Your task to perform on an android device: turn off data saver in the chrome app Image 0: 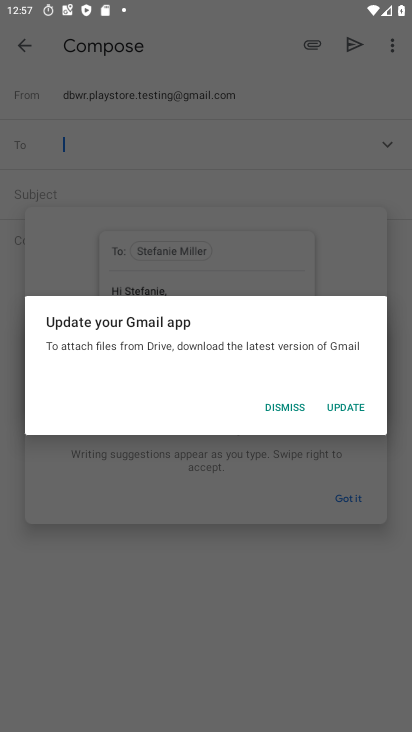
Step 0: press home button
Your task to perform on an android device: turn off data saver in the chrome app Image 1: 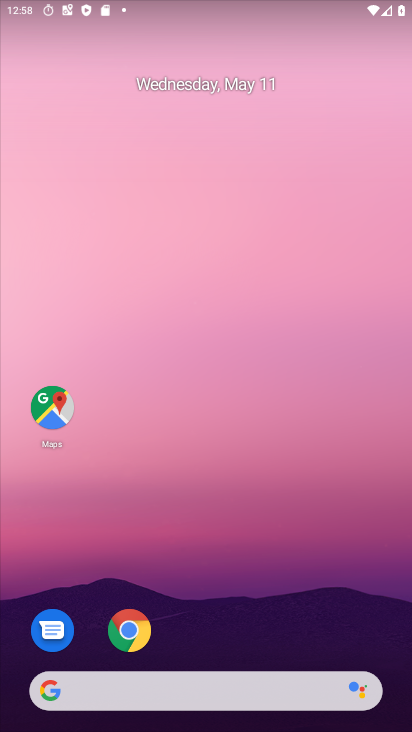
Step 1: click (133, 636)
Your task to perform on an android device: turn off data saver in the chrome app Image 2: 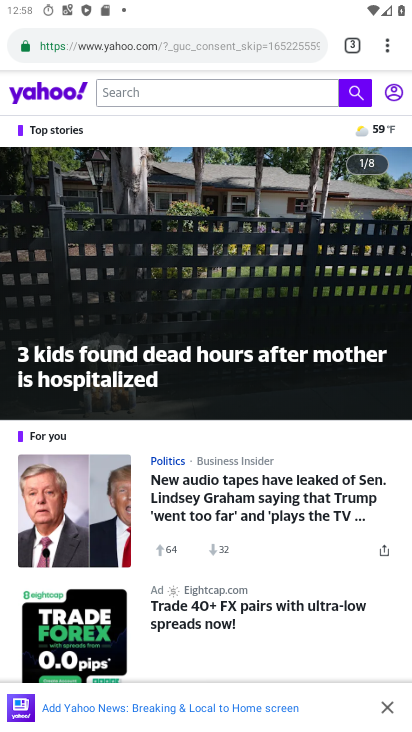
Step 2: drag from (389, 50) to (256, 536)
Your task to perform on an android device: turn off data saver in the chrome app Image 3: 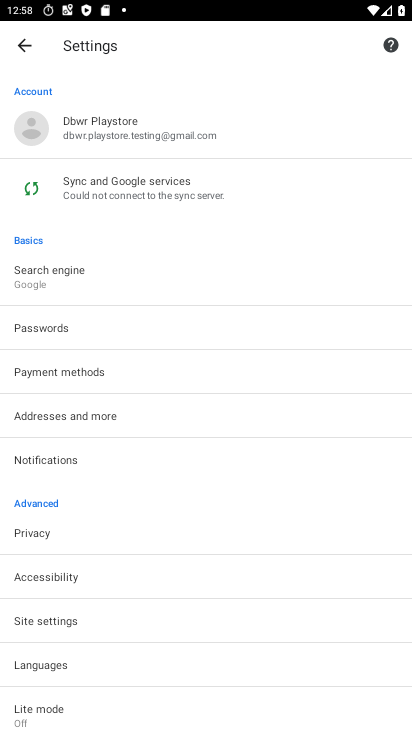
Step 3: click (49, 713)
Your task to perform on an android device: turn off data saver in the chrome app Image 4: 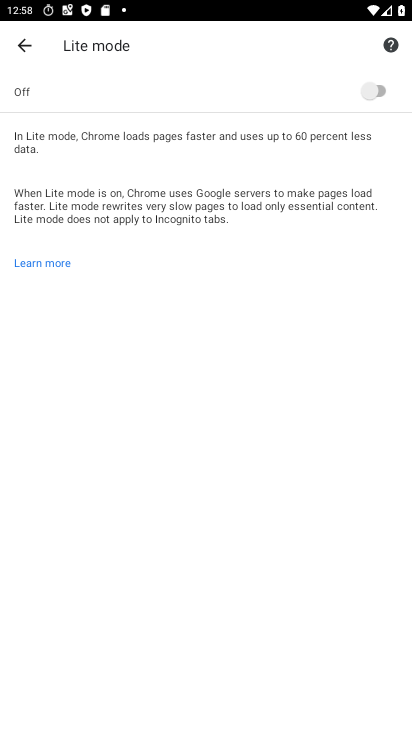
Step 4: task complete